Your task to perform on an android device: Open the phone app and click the voicemail tab. Image 0: 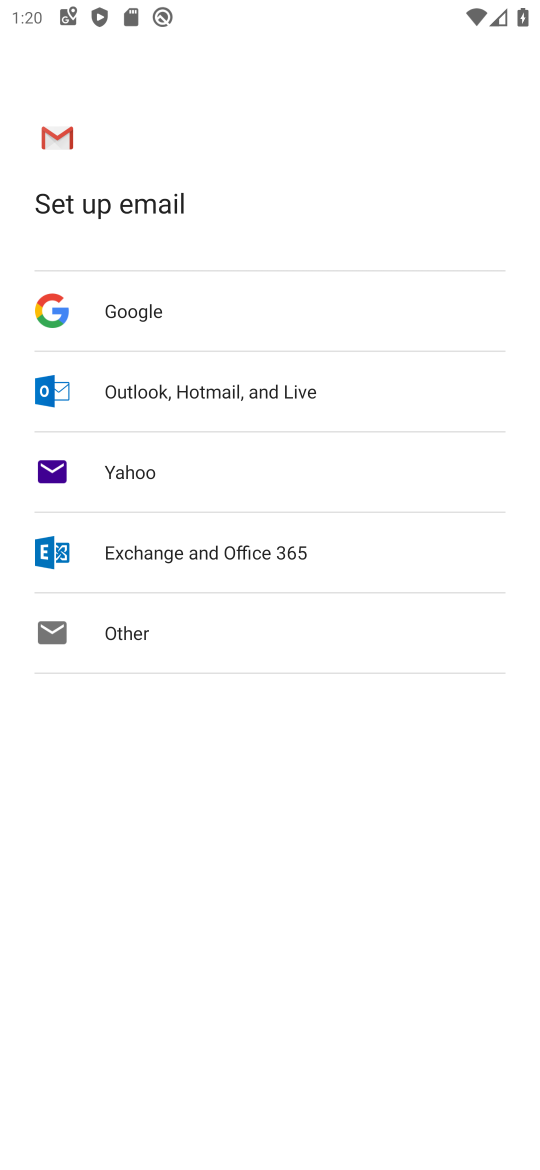
Step 0: press home button
Your task to perform on an android device: Open the phone app and click the voicemail tab. Image 1: 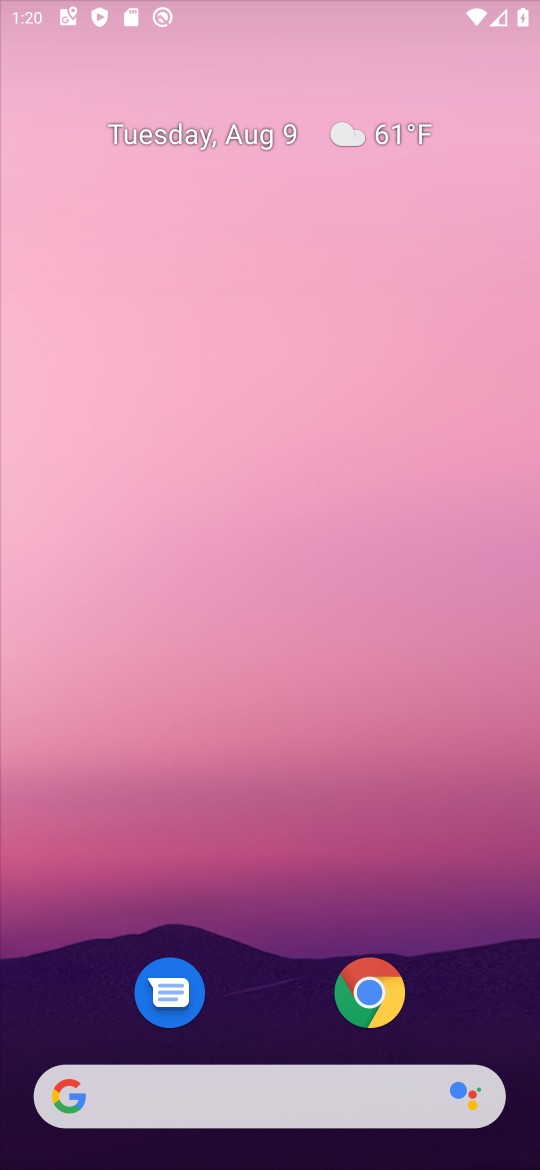
Step 1: click (529, 563)
Your task to perform on an android device: Open the phone app and click the voicemail tab. Image 2: 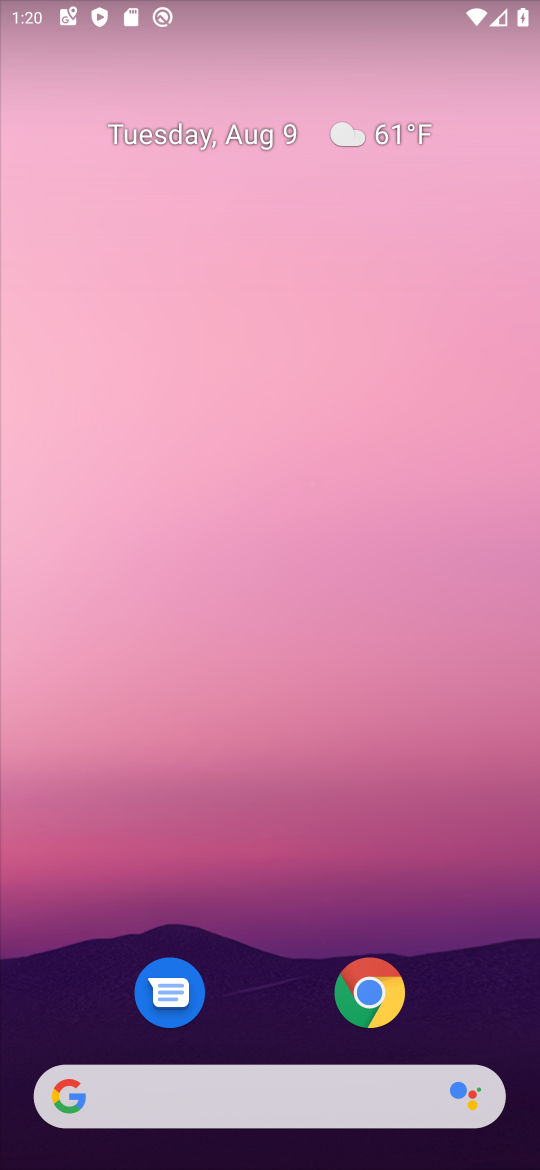
Step 2: drag from (223, 1017) to (220, 273)
Your task to perform on an android device: Open the phone app and click the voicemail tab. Image 3: 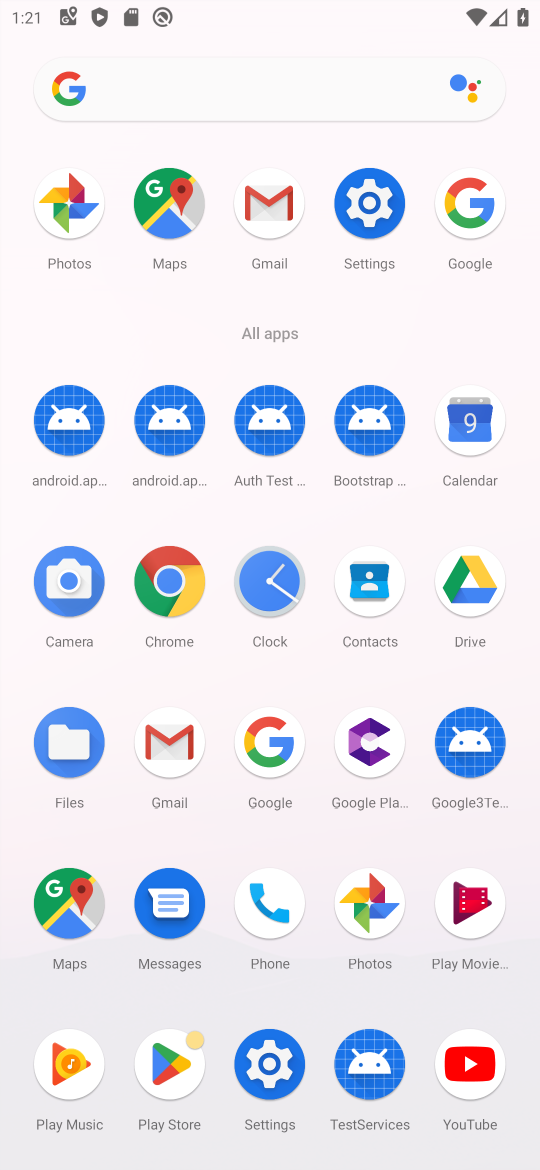
Step 3: click (266, 913)
Your task to perform on an android device: Open the phone app and click the voicemail tab. Image 4: 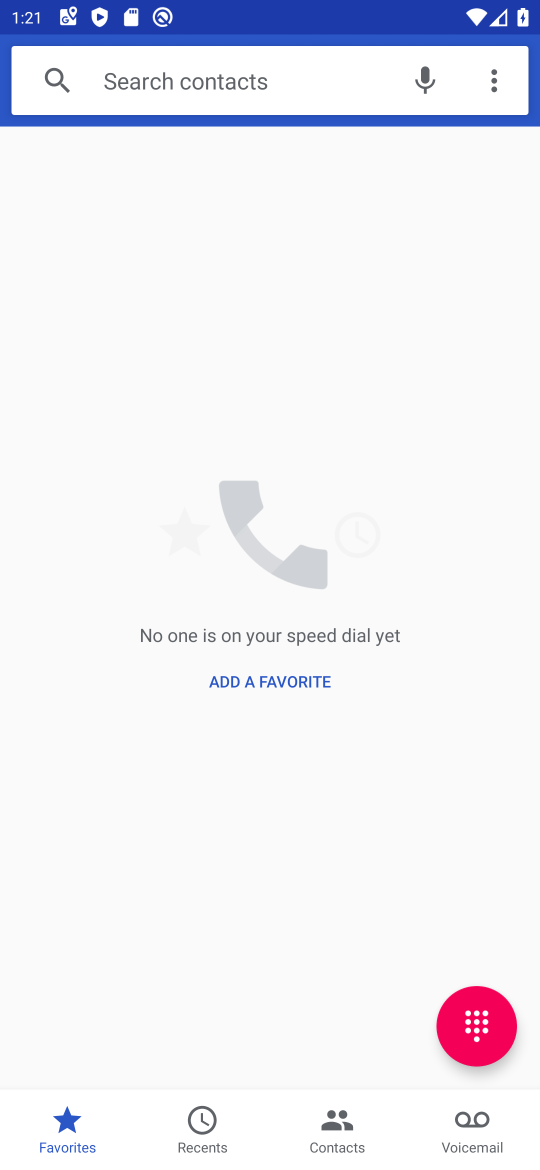
Step 4: click (470, 1117)
Your task to perform on an android device: Open the phone app and click the voicemail tab. Image 5: 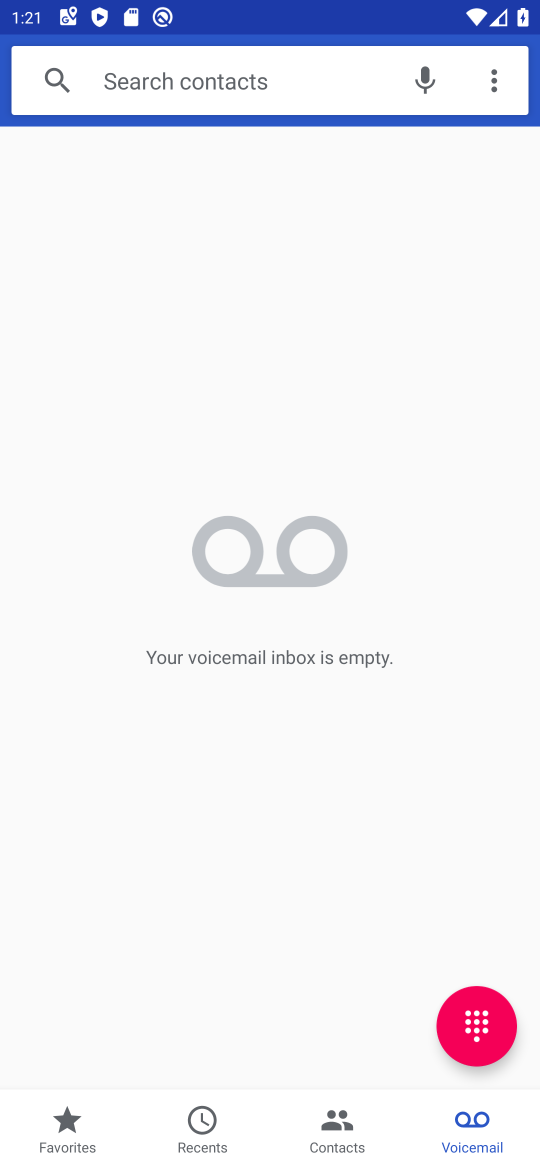
Step 5: task complete